Your task to perform on an android device: clear all cookies in the chrome app Image 0: 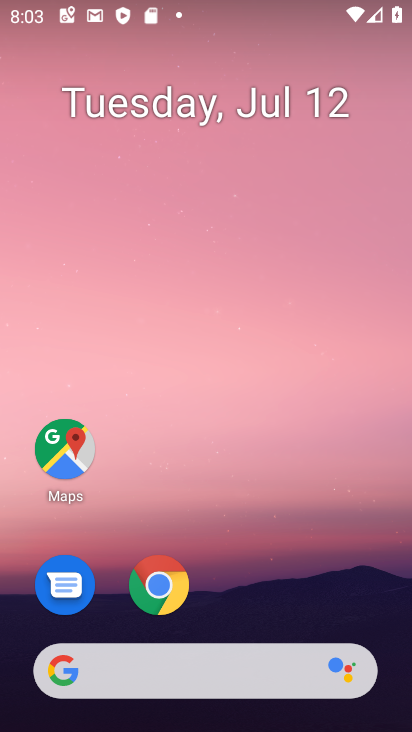
Step 0: click (179, 587)
Your task to perform on an android device: clear all cookies in the chrome app Image 1: 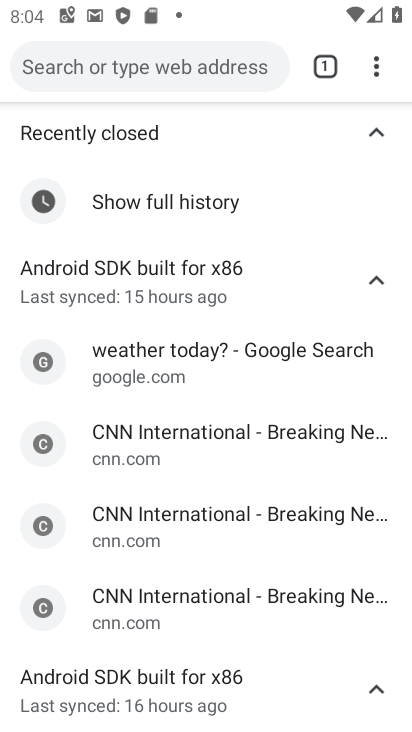
Step 1: click (371, 70)
Your task to perform on an android device: clear all cookies in the chrome app Image 2: 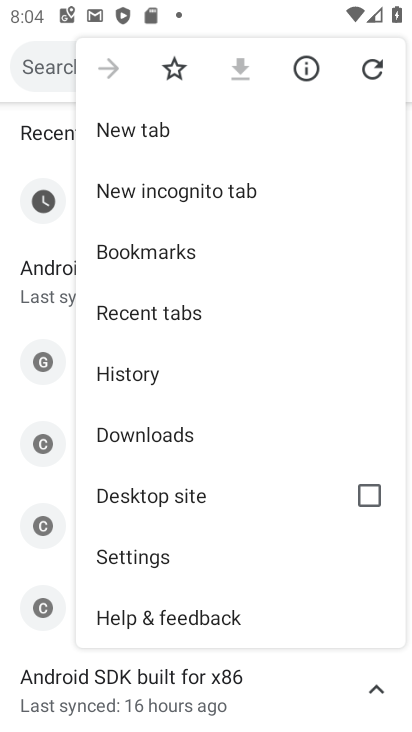
Step 2: click (162, 372)
Your task to perform on an android device: clear all cookies in the chrome app Image 3: 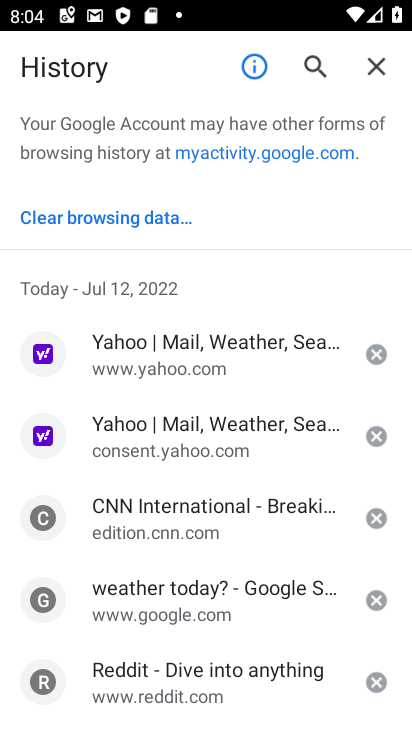
Step 3: click (142, 219)
Your task to perform on an android device: clear all cookies in the chrome app Image 4: 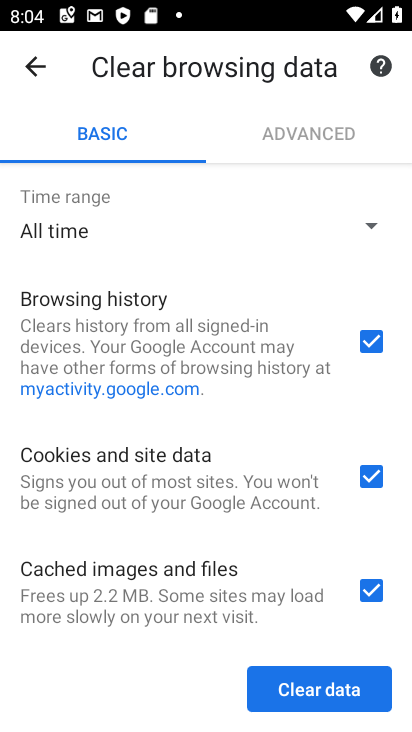
Step 4: click (375, 340)
Your task to perform on an android device: clear all cookies in the chrome app Image 5: 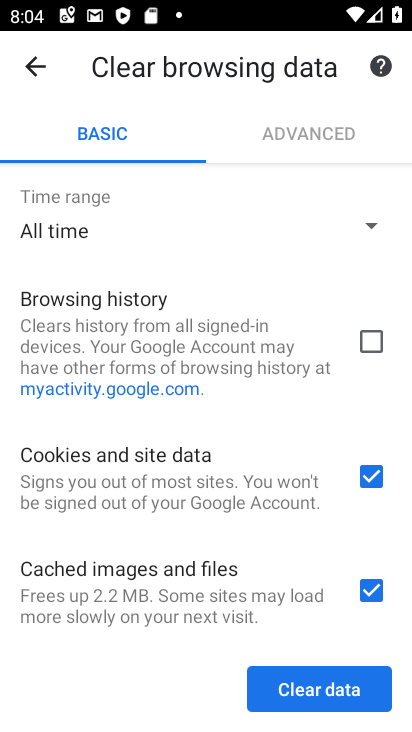
Step 5: click (370, 590)
Your task to perform on an android device: clear all cookies in the chrome app Image 6: 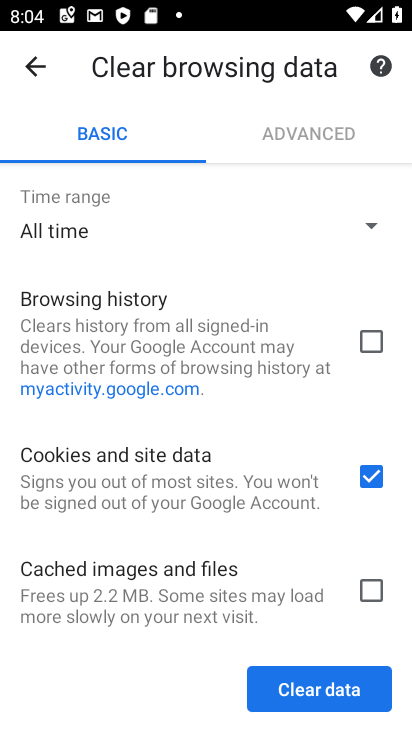
Step 6: click (329, 696)
Your task to perform on an android device: clear all cookies in the chrome app Image 7: 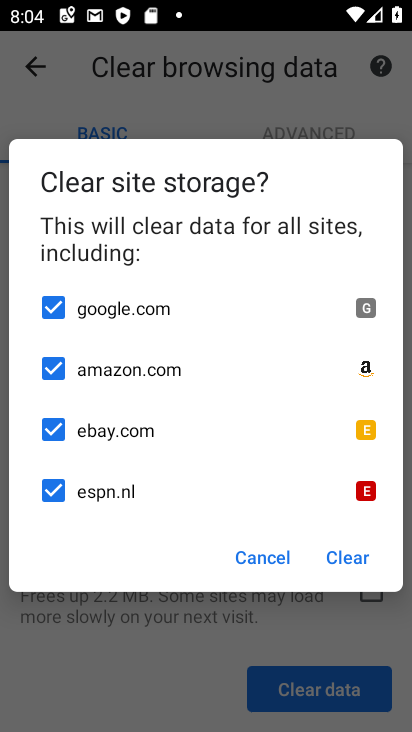
Step 7: click (345, 551)
Your task to perform on an android device: clear all cookies in the chrome app Image 8: 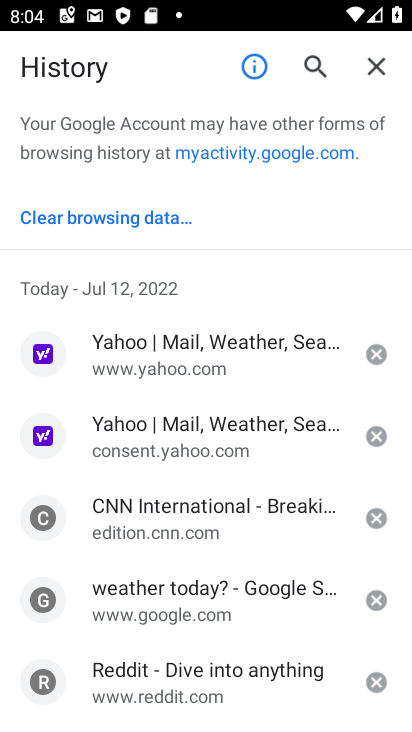
Step 8: task complete